Your task to perform on an android device: check battery use Image 0: 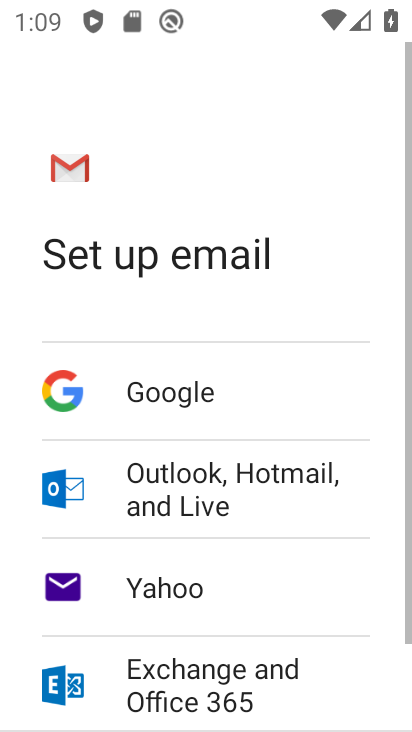
Step 0: press home button
Your task to perform on an android device: check battery use Image 1: 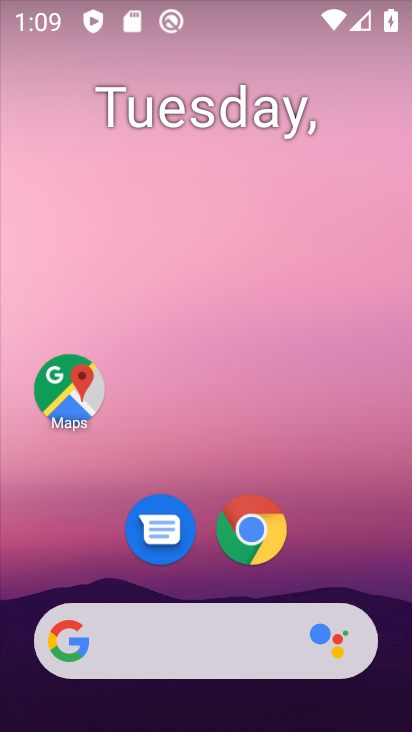
Step 1: drag from (381, 529) to (299, 108)
Your task to perform on an android device: check battery use Image 2: 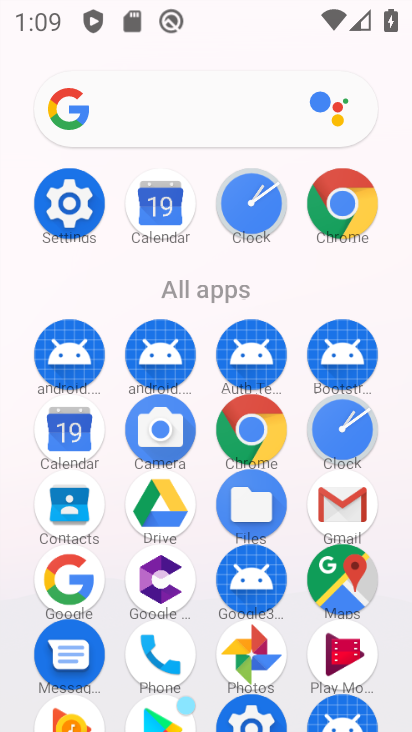
Step 2: click (68, 213)
Your task to perform on an android device: check battery use Image 3: 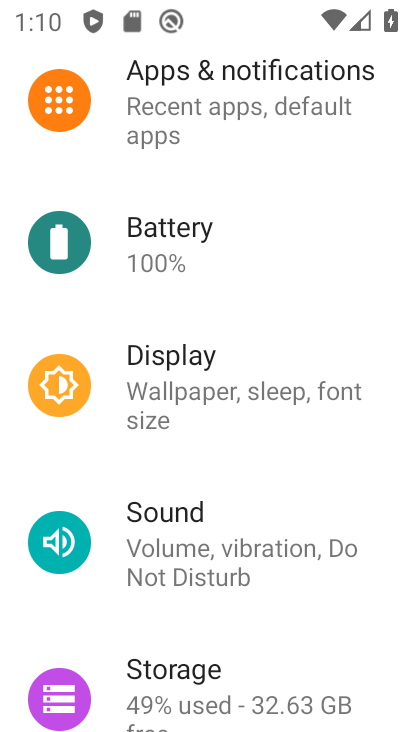
Step 3: drag from (264, 561) to (258, 722)
Your task to perform on an android device: check battery use Image 4: 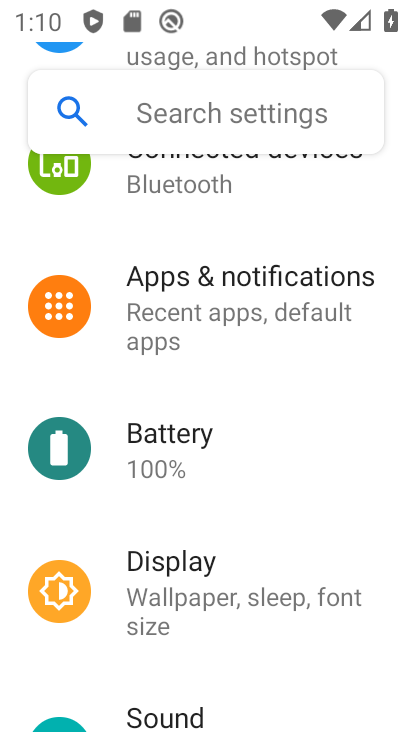
Step 4: click (287, 484)
Your task to perform on an android device: check battery use Image 5: 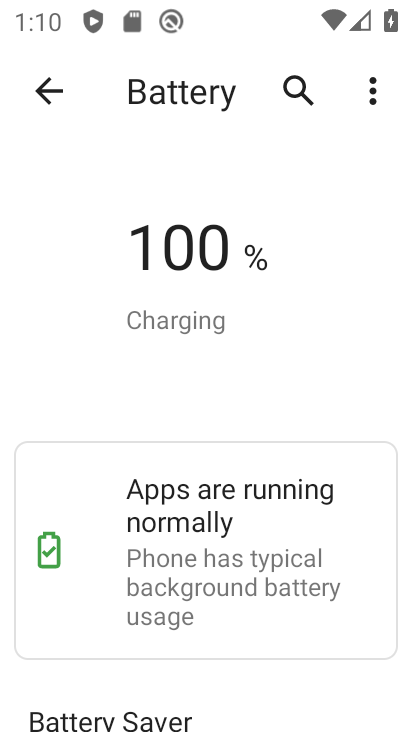
Step 5: click (362, 100)
Your task to perform on an android device: check battery use Image 6: 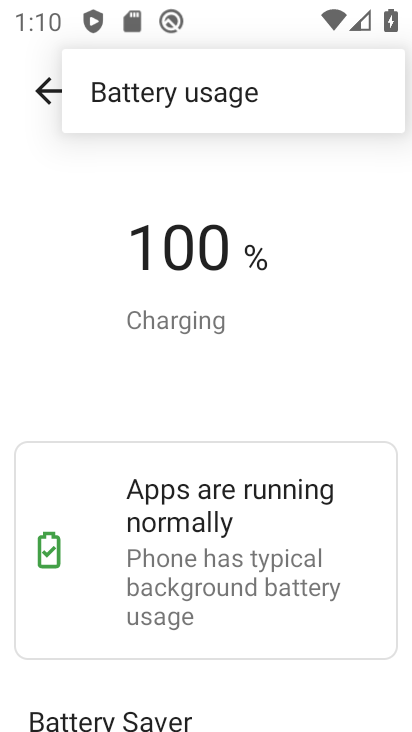
Step 6: click (282, 93)
Your task to perform on an android device: check battery use Image 7: 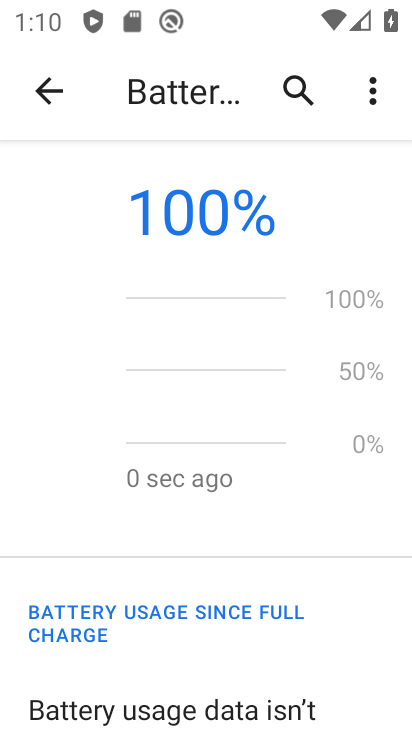
Step 7: task complete